Your task to perform on an android device: Go to settings Image 0: 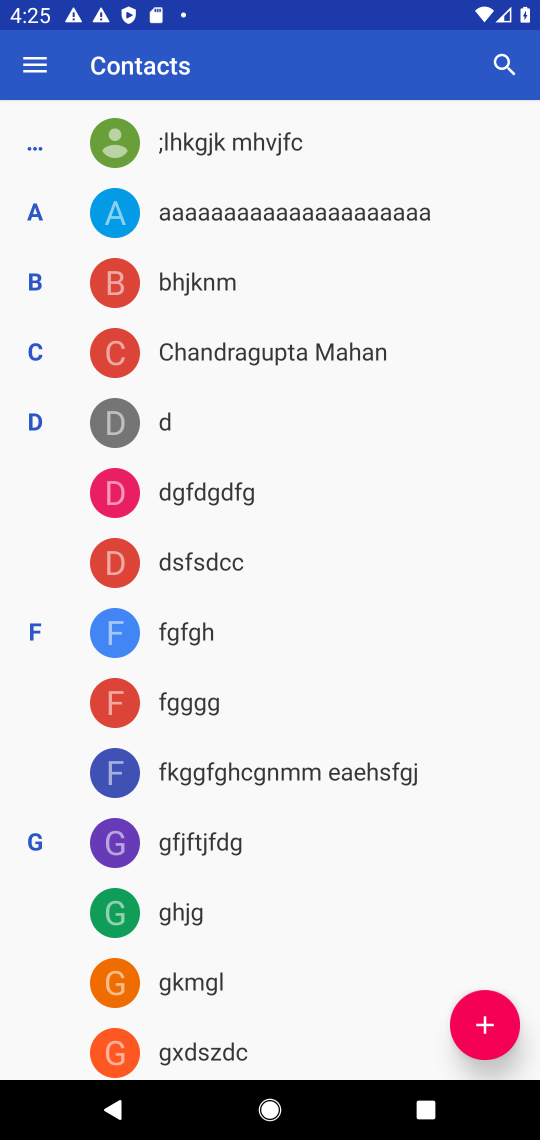
Step 0: press home button
Your task to perform on an android device: Go to settings Image 1: 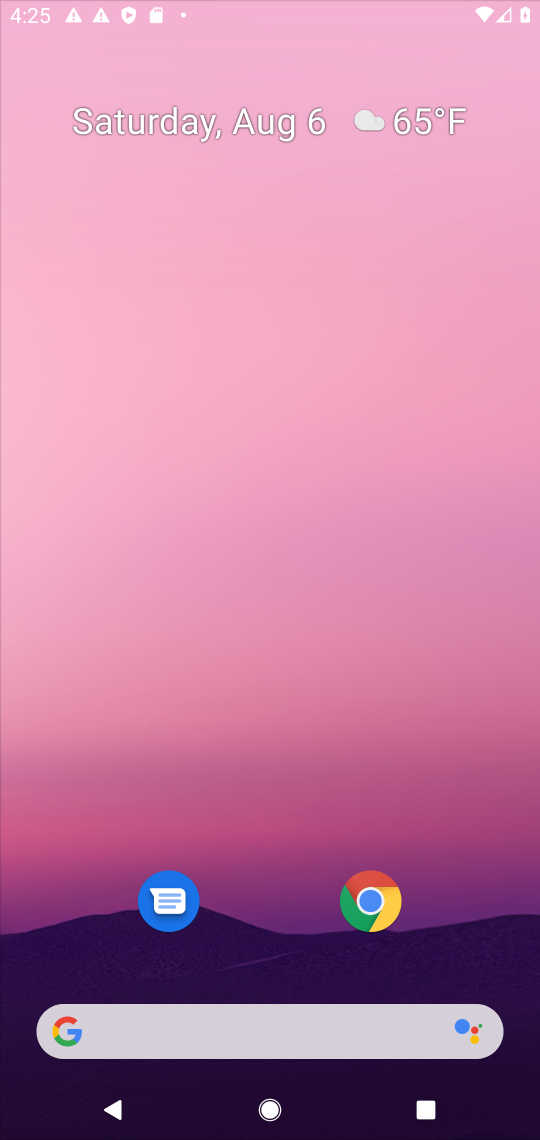
Step 1: drag from (292, 1038) to (221, 328)
Your task to perform on an android device: Go to settings Image 2: 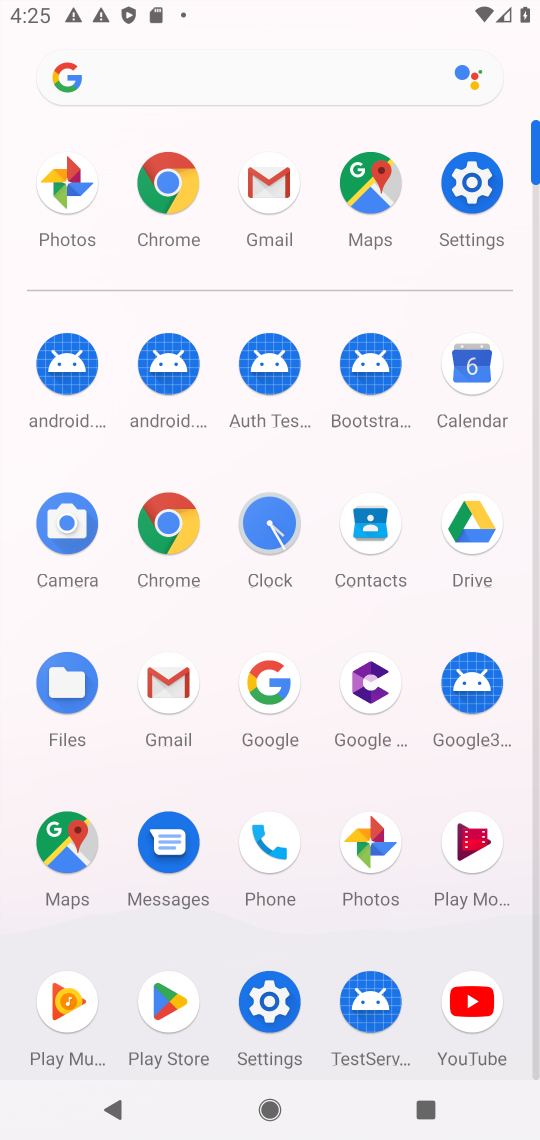
Step 2: click (471, 188)
Your task to perform on an android device: Go to settings Image 3: 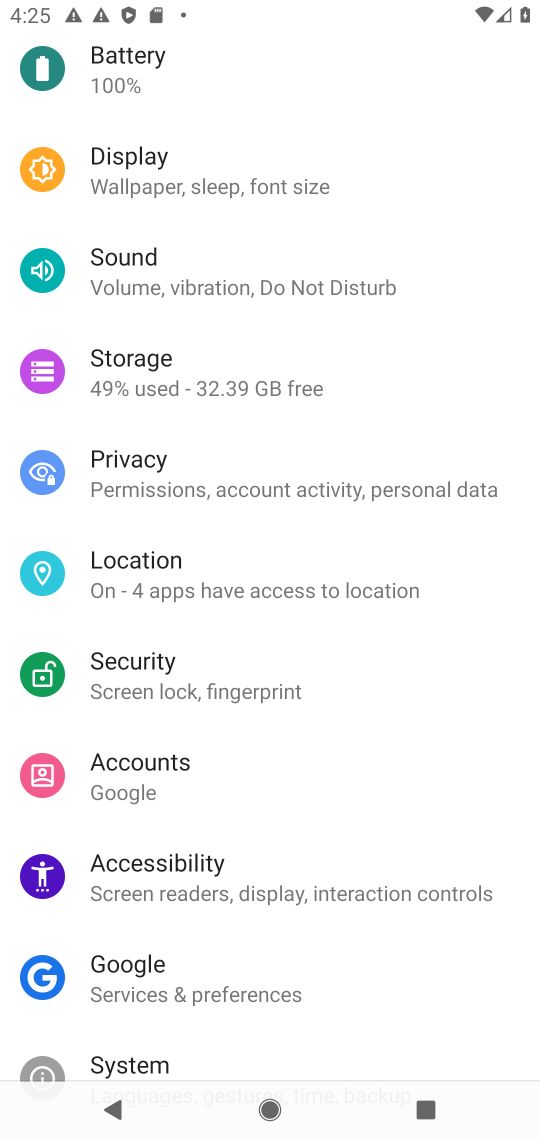
Step 3: task complete